Your task to perform on an android device: turn off airplane mode Image 0: 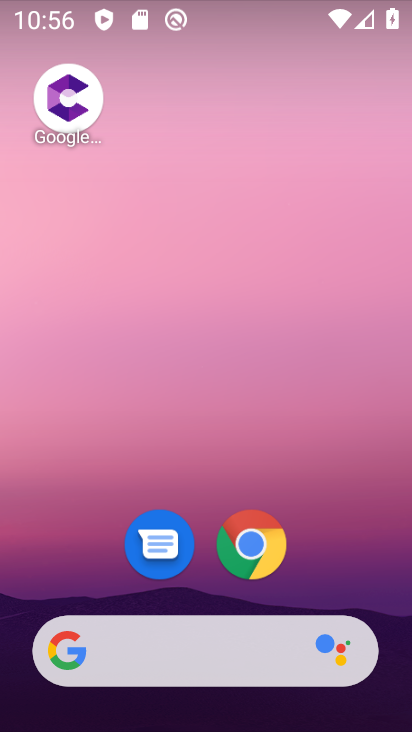
Step 0: drag from (352, 604) to (354, 2)
Your task to perform on an android device: turn off airplane mode Image 1: 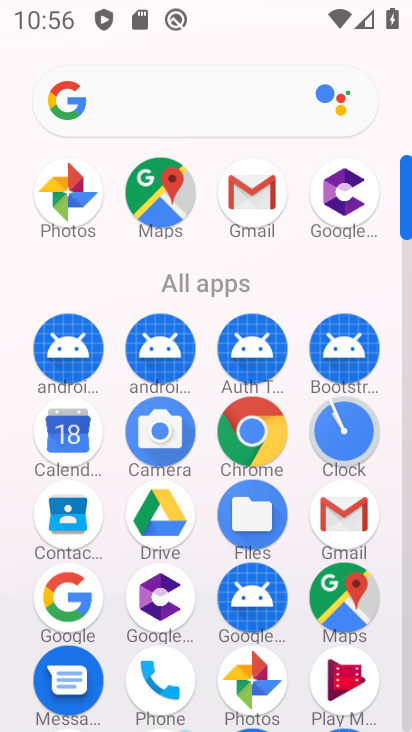
Step 1: click (404, 553)
Your task to perform on an android device: turn off airplane mode Image 2: 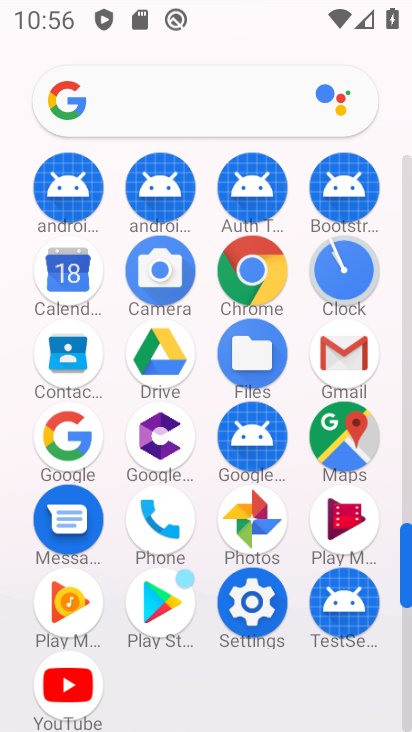
Step 2: click (253, 612)
Your task to perform on an android device: turn off airplane mode Image 3: 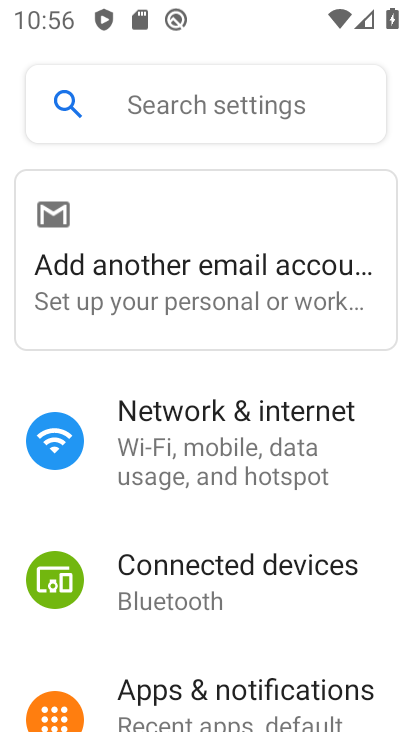
Step 3: click (214, 446)
Your task to perform on an android device: turn off airplane mode Image 4: 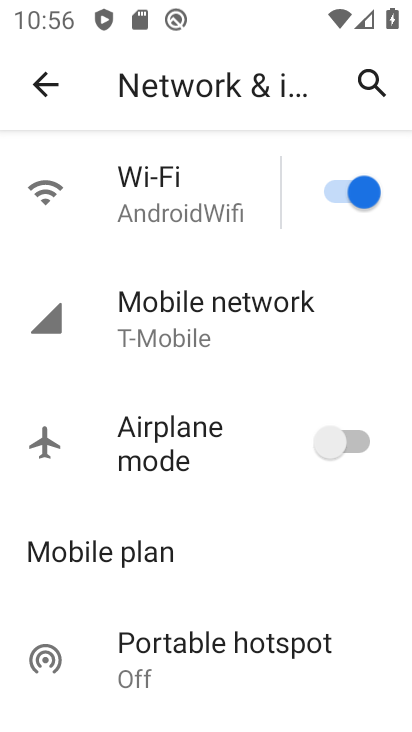
Step 4: task complete